Your task to perform on an android device: refresh tabs in the chrome app Image 0: 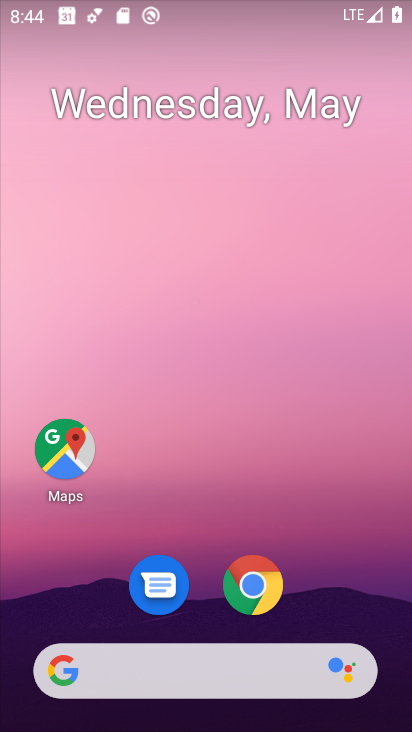
Step 0: click (275, 576)
Your task to perform on an android device: refresh tabs in the chrome app Image 1: 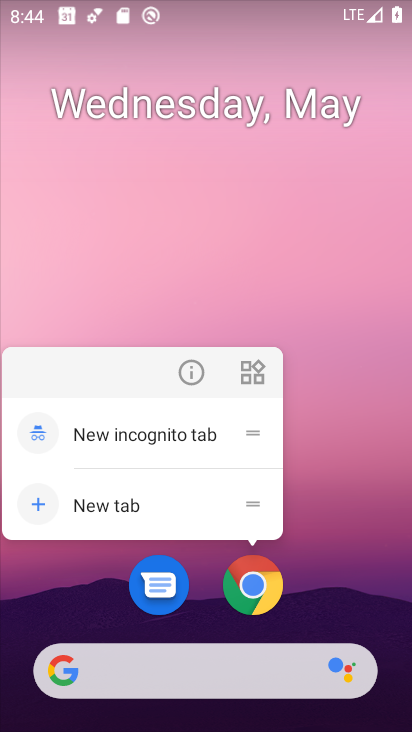
Step 1: click (250, 573)
Your task to perform on an android device: refresh tabs in the chrome app Image 2: 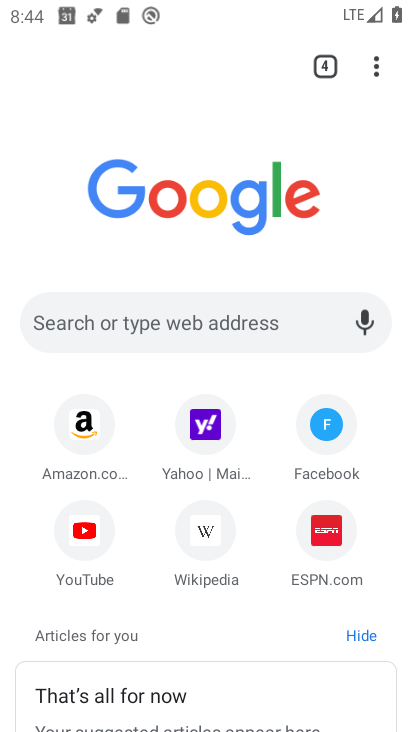
Step 2: click (370, 62)
Your task to perform on an android device: refresh tabs in the chrome app Image 3: 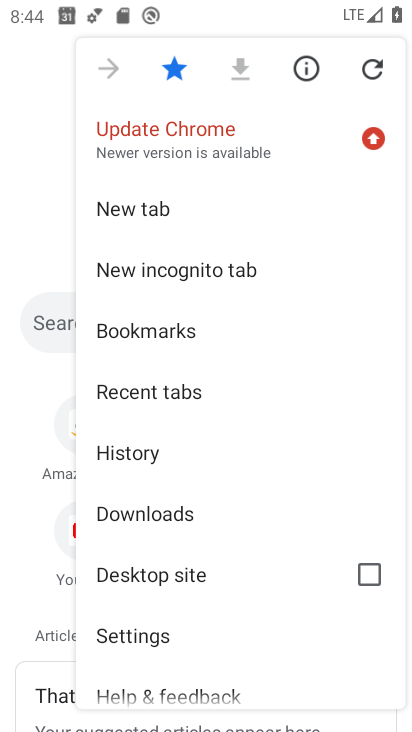
Step 3: click (370, 62)
Your task to perform on an android device: refresh tabs in the chrome app Image 4: 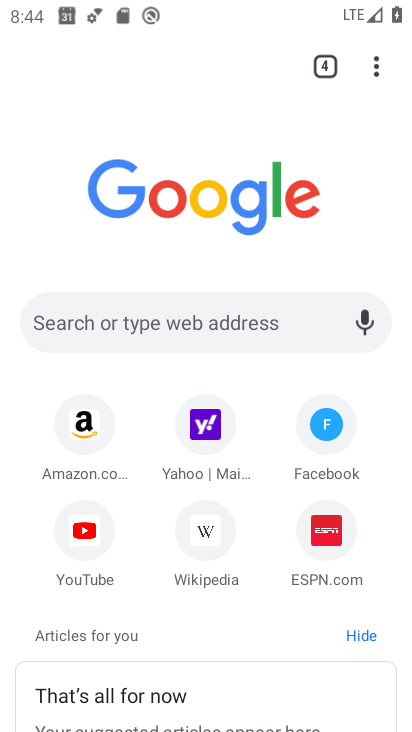
Step 4: task complete